Your task to perform on an android device: Check the settings for the Google Photos app Image 0: 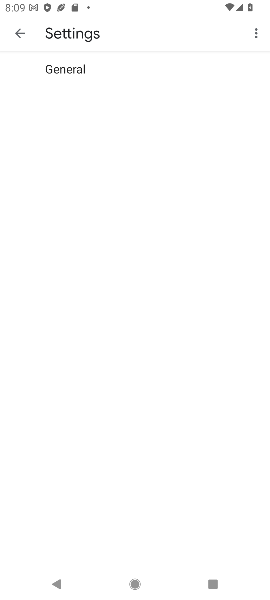
Step 0: press home button
Your task to perform on an android device: Check the settings for the Google Photos app Image 1: 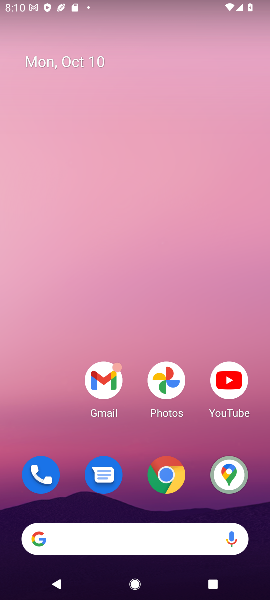
Step 1: click (161, 397)
Your task to perform on an android device: Check the settings for the Google Photos app Image 2: 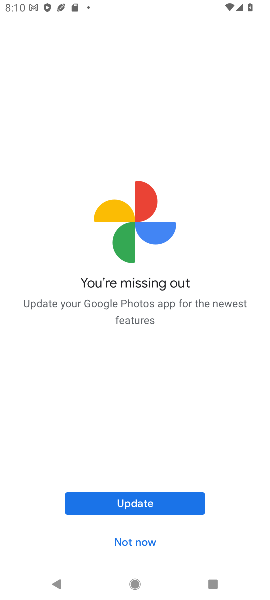
Step 2: click (136, 539)
Your task to perform on an android device: Check the settings for the Google Photos app Image 3: 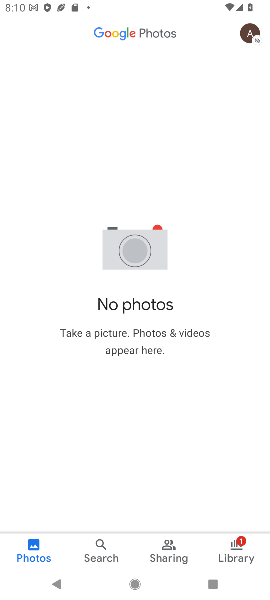
Step 3: click (238, 543)
Your task to perform on an android device: Check the settings for the Google Photos app Image 4: 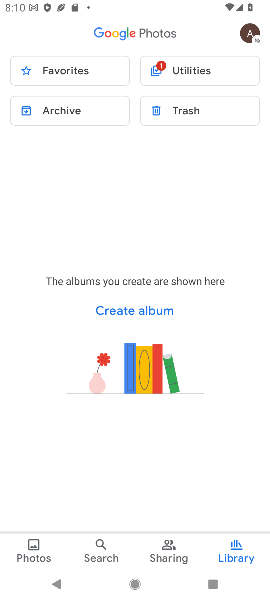
Step 4: click (247, 33)
Your task to perform on an android device: Check the settings for the Google Photos app Image 5: 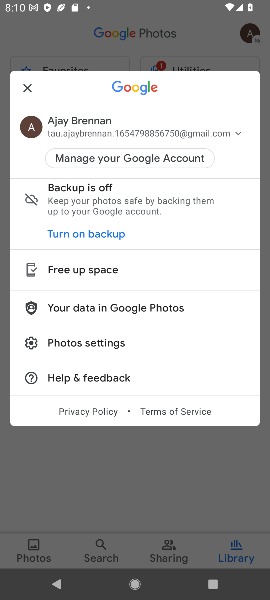
Step 5: click (129, 343)
Your task to perform on an android device: Check the settings for the Google Photos app Image 6: 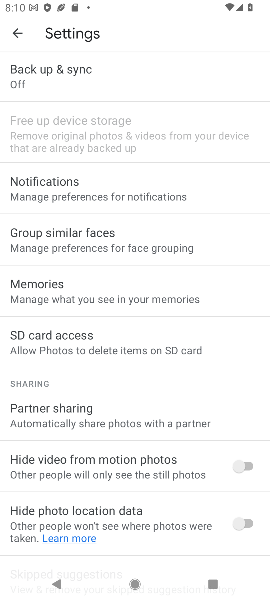
Step 6: task complete